Your task to perform on an android device: change the upload size in google photos Image 0: 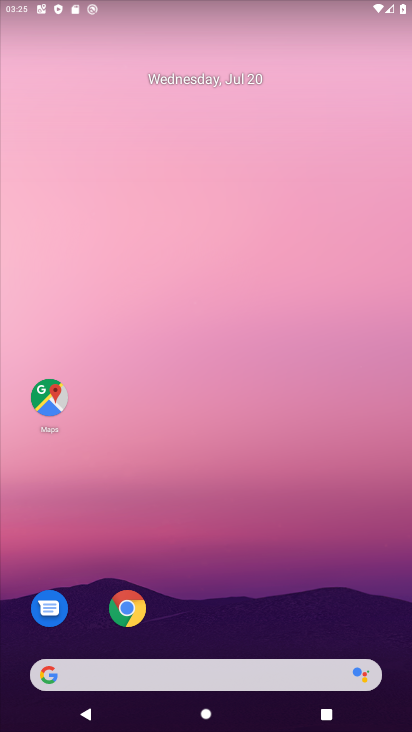
Step 0: drag from (382, 500) to (345, 184)
Your task to perform on an android device: change the upload size in google photos Image 1: 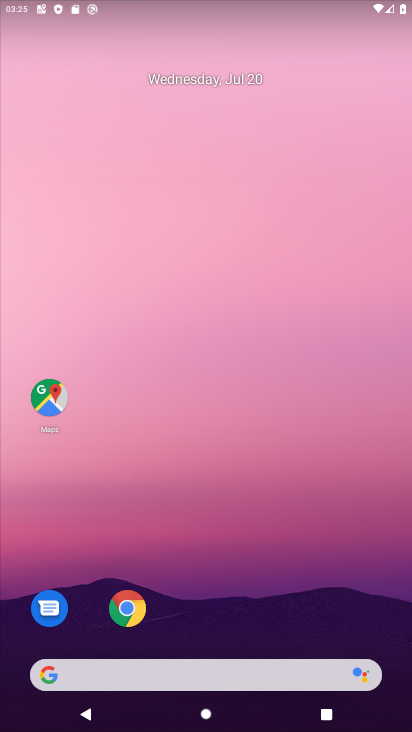
Step 1: drag from (402, 701) to (347, 59)
Your task to perform on an android device: change the upload size in google photos Image 2: 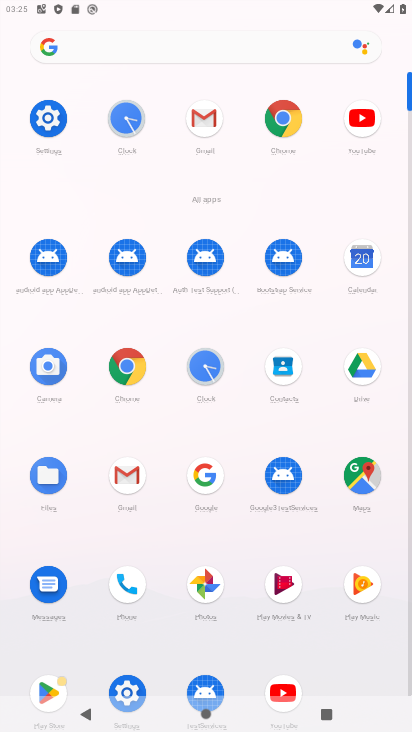
Step 2: click (199, 587)
Your task to perform on an android device: change the upload size in google photos Image 3: 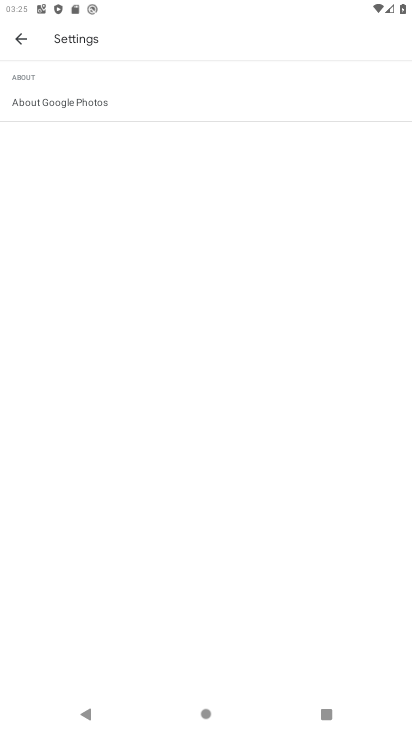
Step 3: click (15, 46)
Your task to perform on an android device: change the upload size in google photos Image 4: 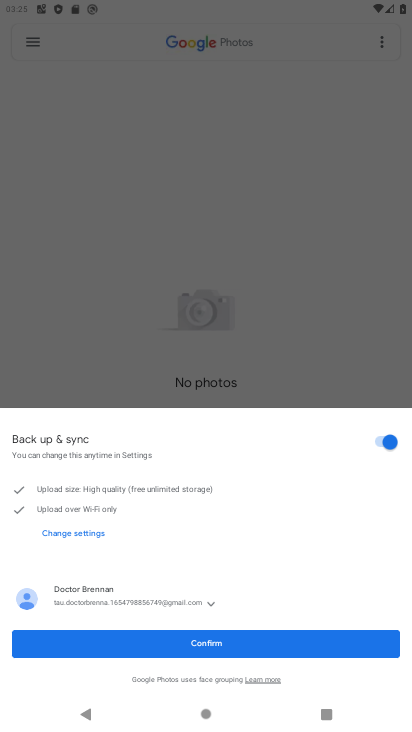
Step 4: click (266, 637)
Your task to perform on an android device: change the upload size in google photos Image 5: 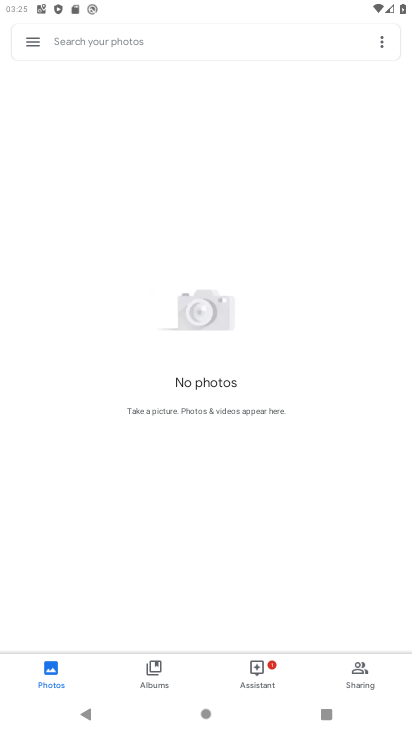
Step 5: click (31, 43)
Your task to perform on an android device: change the upload size in google photos Image 6: 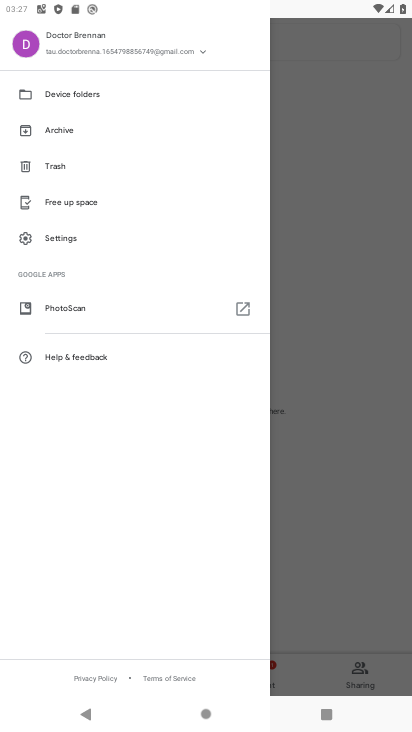
Step 6: click (50, 242)
Your task to perform on an android device: change the upload size in google photos Image 7: 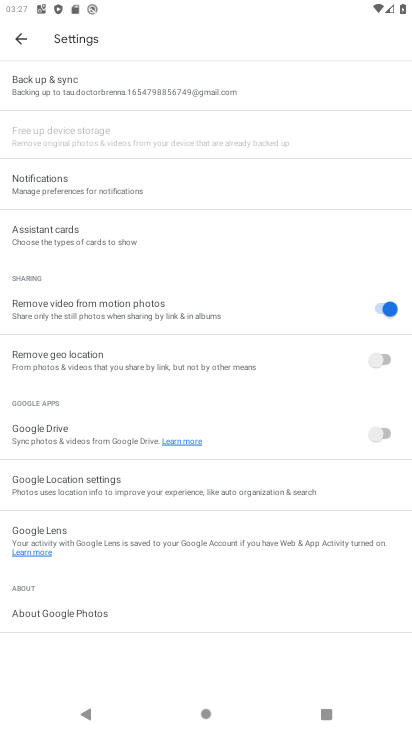
Step 7: click (52, 87)
Your task to perform on an android device: change the upload size in google photos Image 8: 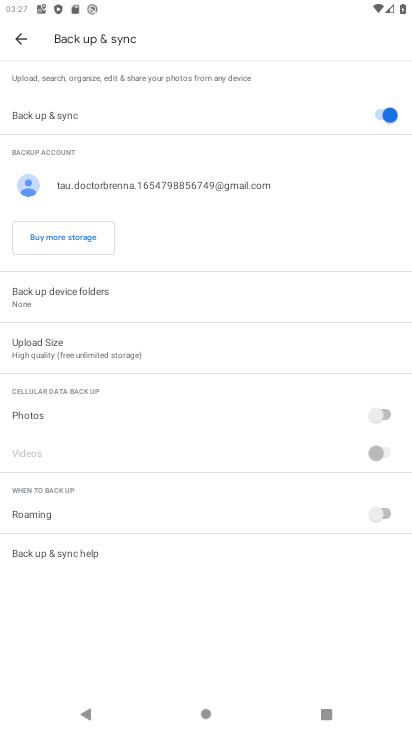
Step 8: click (38, 345)
Your task to perform on an android device: change the upload size in google photos Image 9: 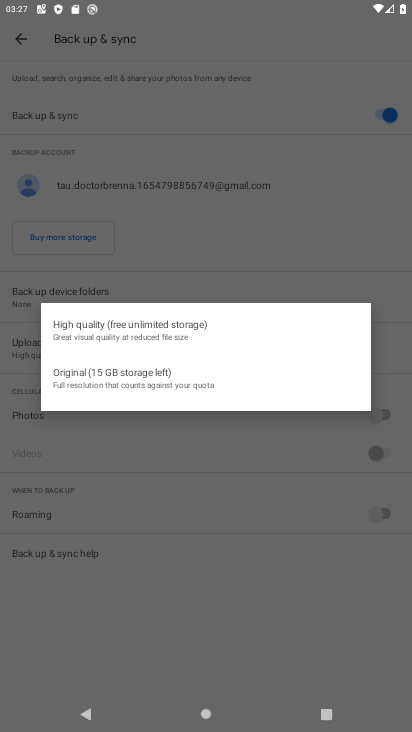
Step 9: click (98, 384)
Your task to perform on an android device: change the upload size in google photos Image 10: 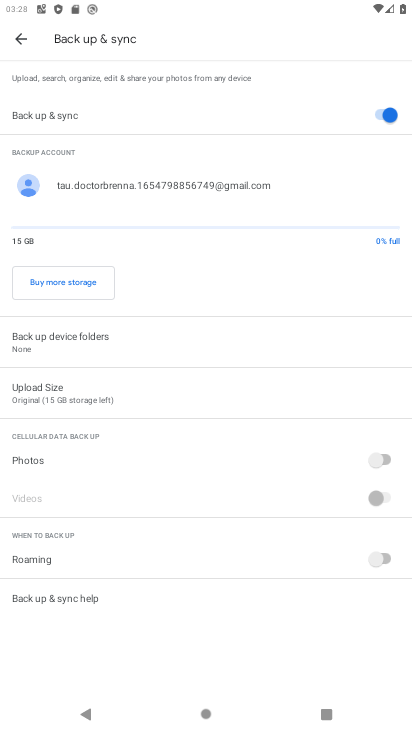
Step 10: task complete